Your task to perform on an android device: Open sound settings Image 0: 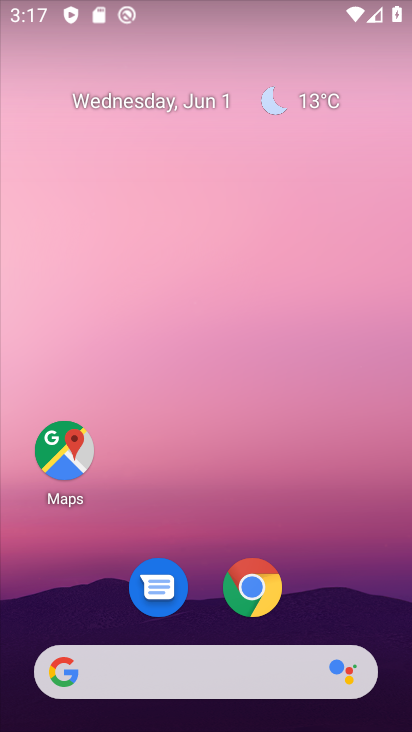
Step 0: drag from (312, 558) to (211, 6)
Your task to perform on an android device: Open sound settings Image 1: 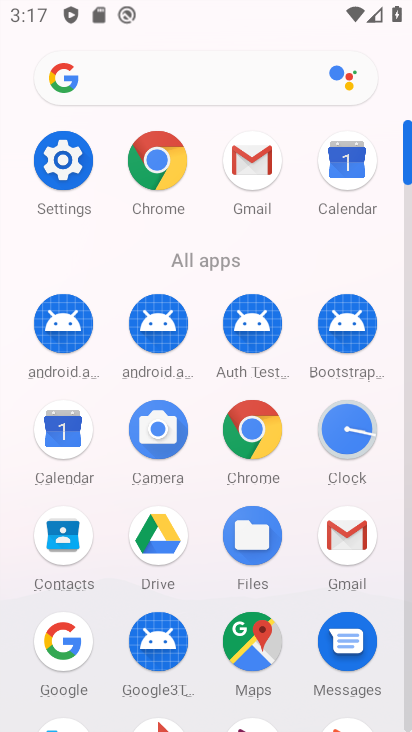
Step 1: drag from (6, 569) to (38, 157)
Your task to perform on an android device: Open sound settings Image 2: 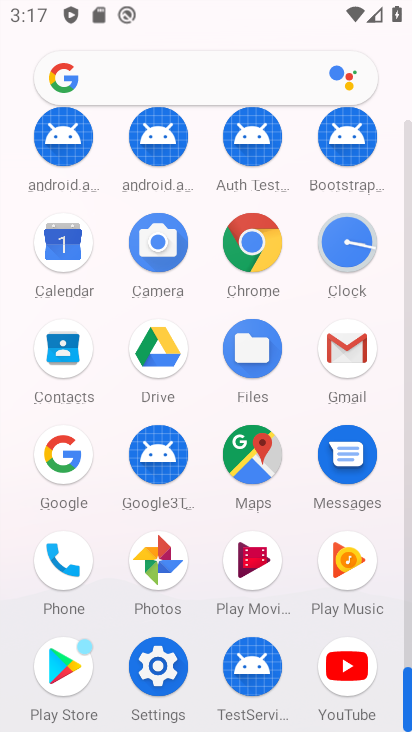
Step 2: drag from (9, 582) to (16, 190)
Your task to perform on an android device: Open sound settings Image 3: 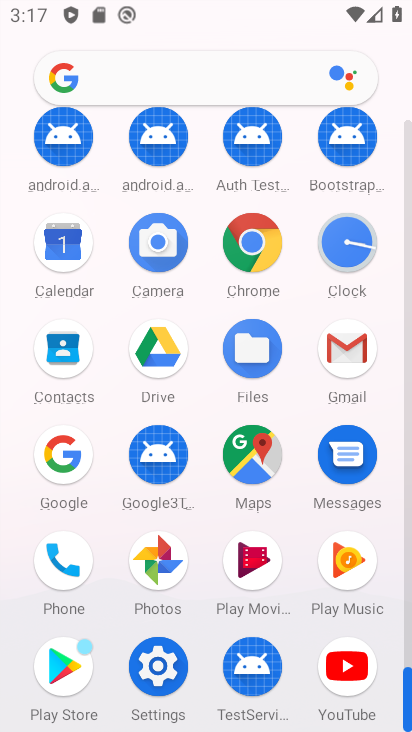
Step 3: click (155, 659)
Your task to perform on an android device: Open sound settings Image 4: 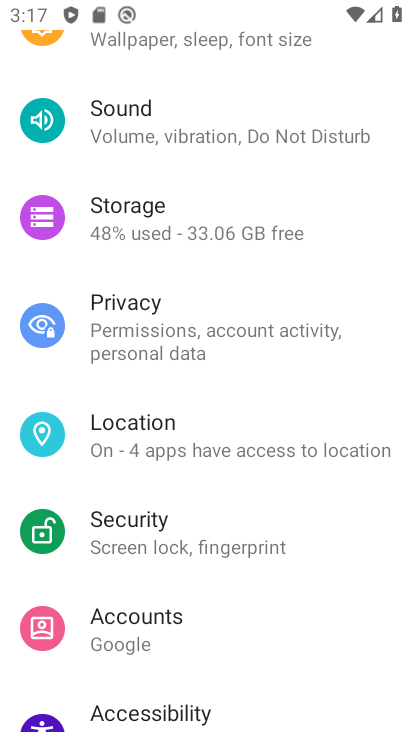
Step 4: click (204, 111)
Your task to perform on an android device: Open sound settings Image 5: 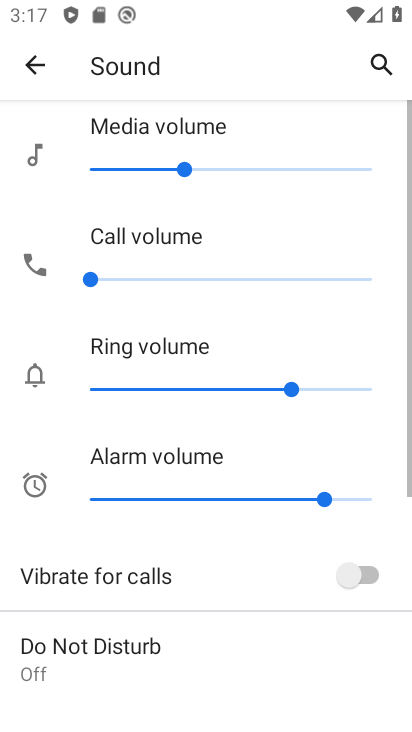
Step 5: drag from (199, 561) to (230, 94)
Your task to perform on an android device: Open sound settings Image 6: 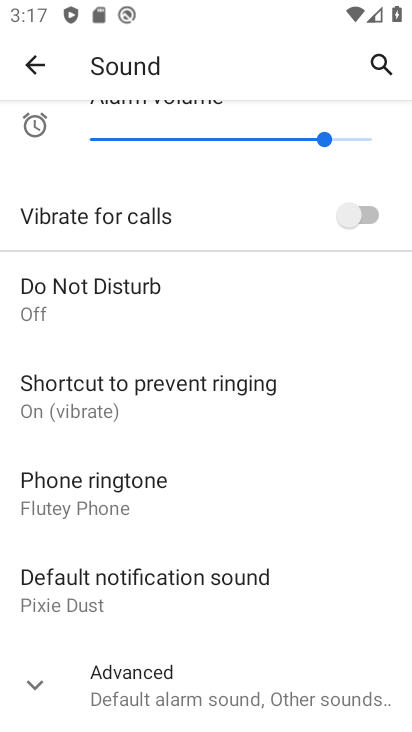
Step 6: click (34, 661)
Your task to perform on an android device: Open sound settings Image 7: 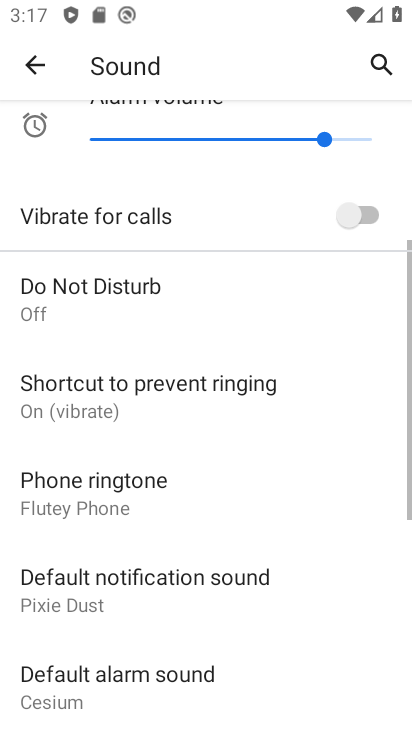
Step 7: task complete